Your task to perform on an android device: create a new album in the google photos Image 0: 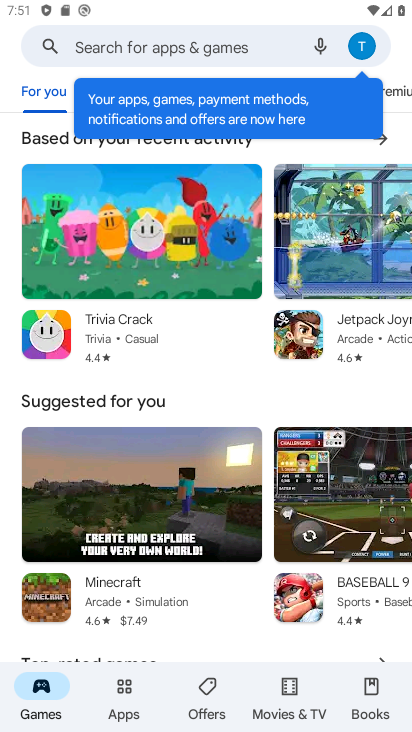
Step 0: press home button
Your task to perform on an android device: create a new album in the google photos Image 1: 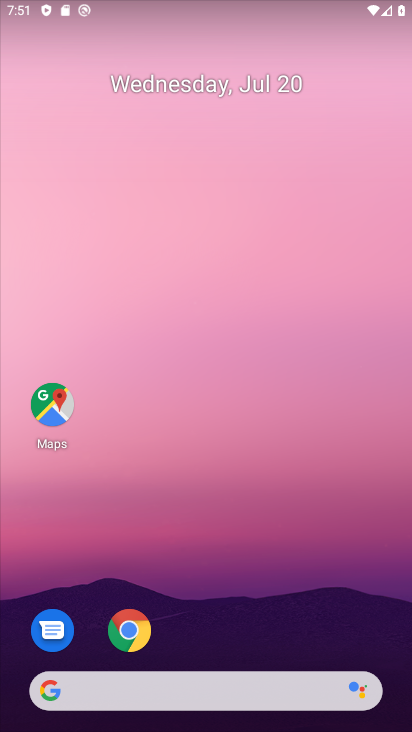
Step 1: drag from (402, 668) to (335, 49)
Your task to perform on an android device: create a new album in the google photos Image 2: 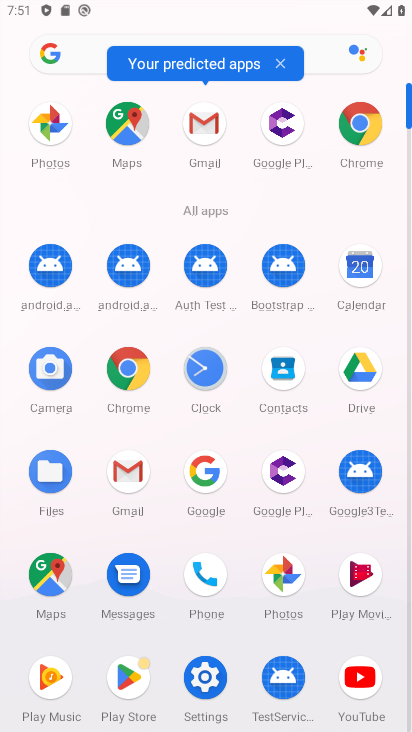
Step 2: click (288, 569)
Your task to perform on an android device: create a new album in the google photos Image 3: 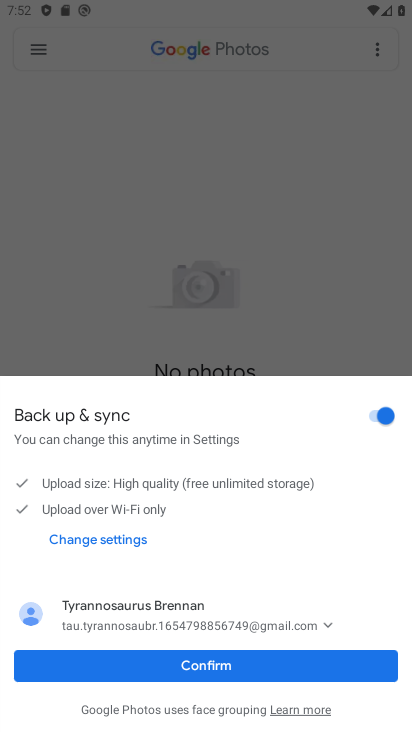
Step 3: click (303, 670)
Your task to perform on an android device: create a new album in the google photos Image 4: 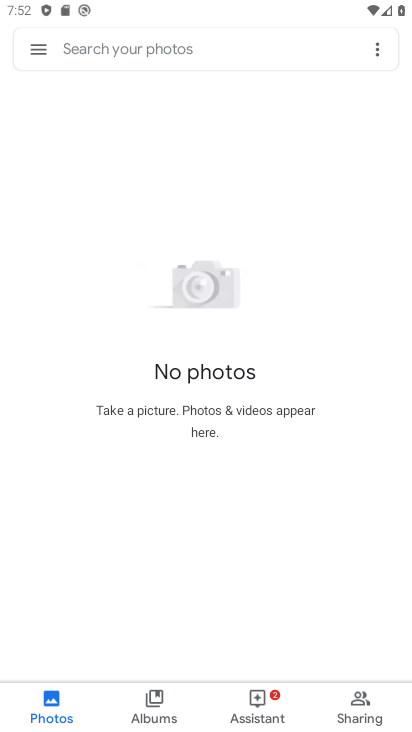
Step 4: click (380, 46)
Your task to perform on an android device: create a new album in the google photos Image 5: 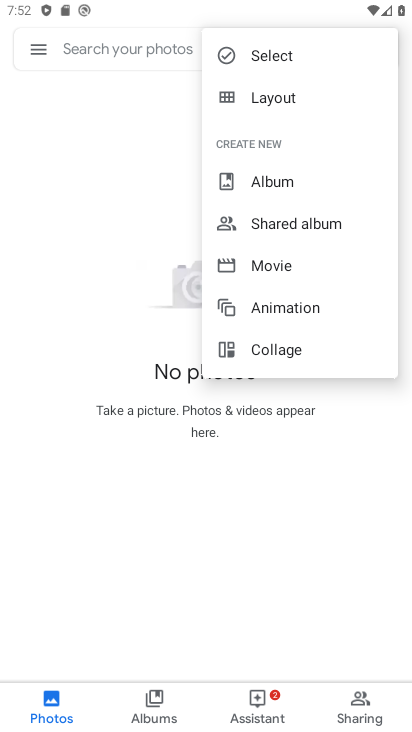
Step 5: click (281, 171)
Your task to perform on an android device: create a new album in the google photos Image 6: 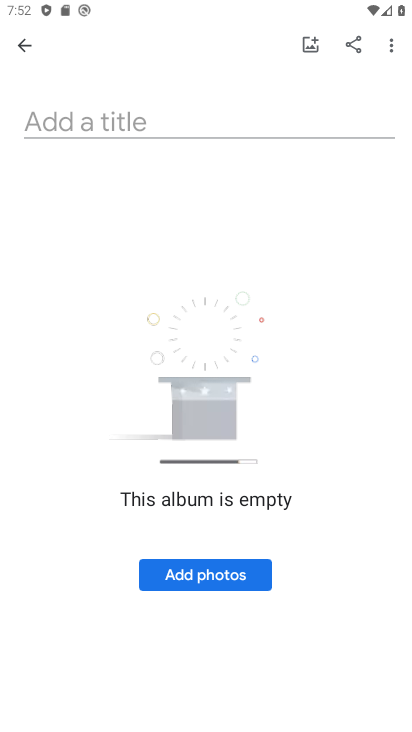
Step 6: task complete